Your task to perform on an android device: turn off notifications settings in the gmail app Image 0: 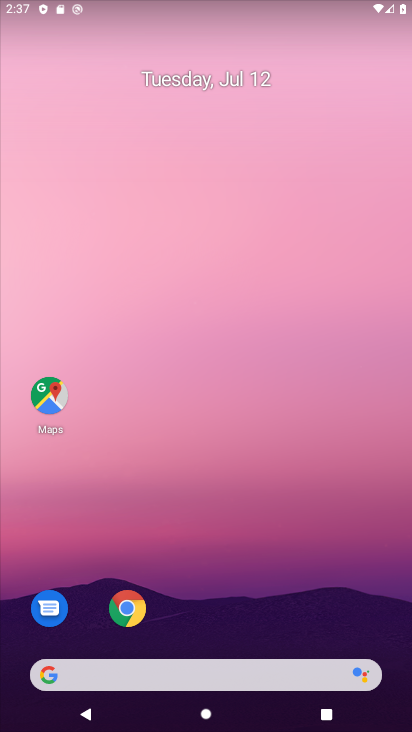
Step 0: drag from (276, 632) to (275, 155)
Your task to perform on an android device: turn off notifications settings in the gmail app Image 1: 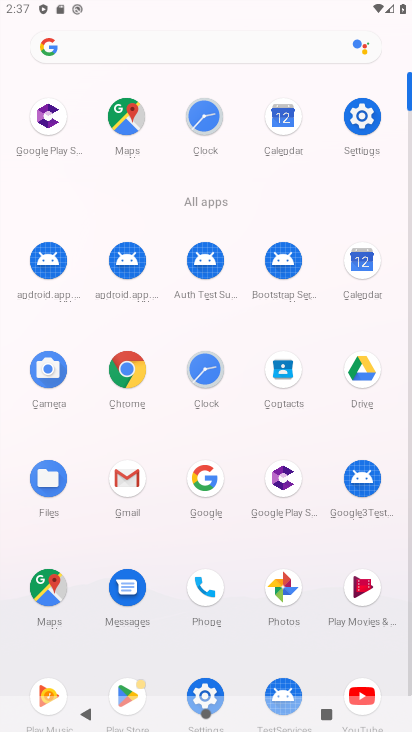
Step 1: click (131, 469)
Your task to perform on an android device: turn off notifications settings in the gmail app Image 2: 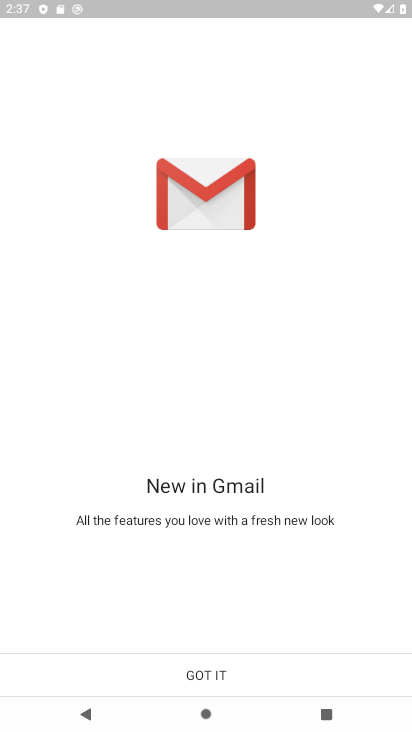
Step 2: click (226, 667)
Your task to perform on an android device: turn off notifications settings in the gmail app Image 3: 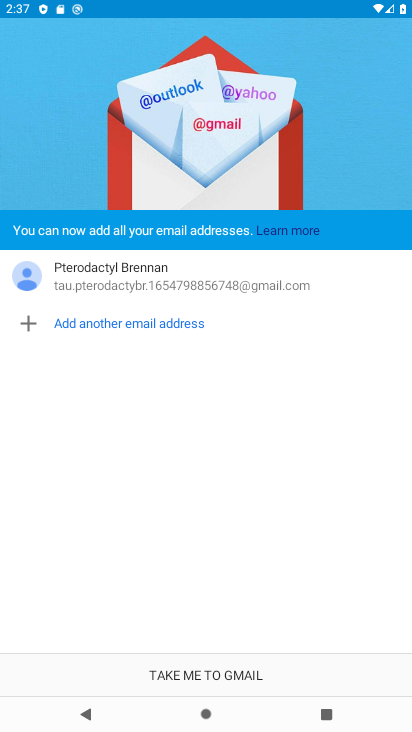
Step 3: click (256, 670)
Your task to perform on an android device: turn off notifications settings in the gmail app Image 4: 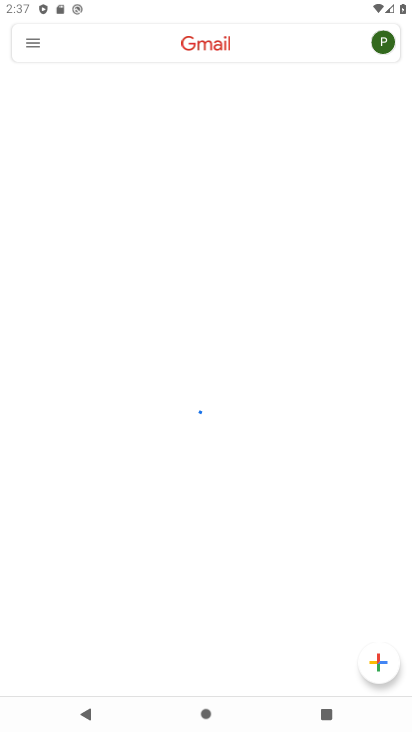
Step 4: click (26, 43)
Your task to perform on an android device: turn off notifications settings in the gmail app Image 5: 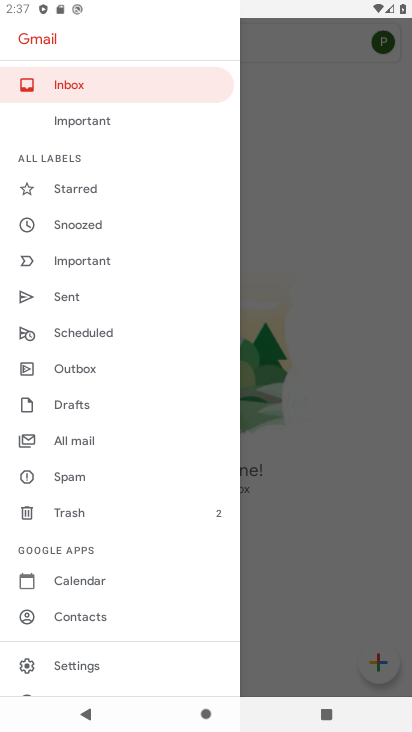
Step 5: click (119, 655)
Your task to perform on an android device: turn off notifications settings in the gmail app Image 6: 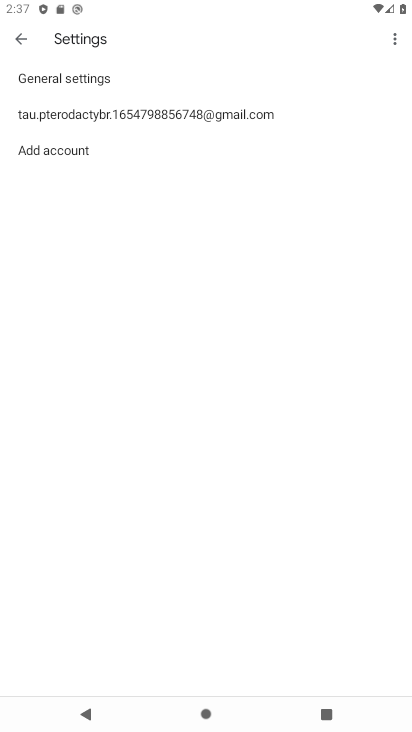
Step 6: click (244, 121)
Your task to perform on an android device: turn off notifications settings in the gmail app Image 7: 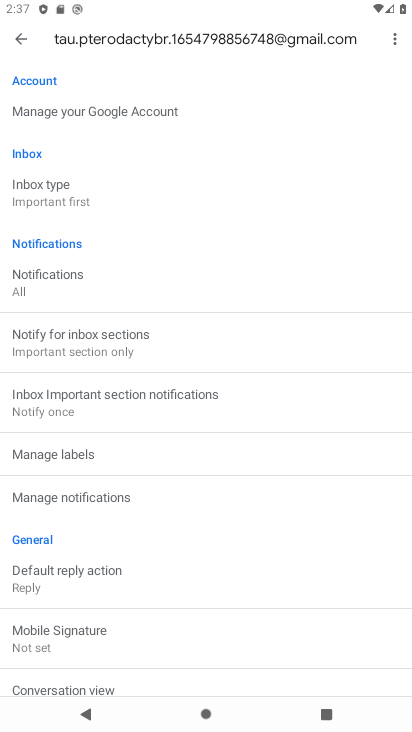
Step 7: click (92, 493)
Your task to perform on an android device: turn off notifications settings in the gmail app Image 8: 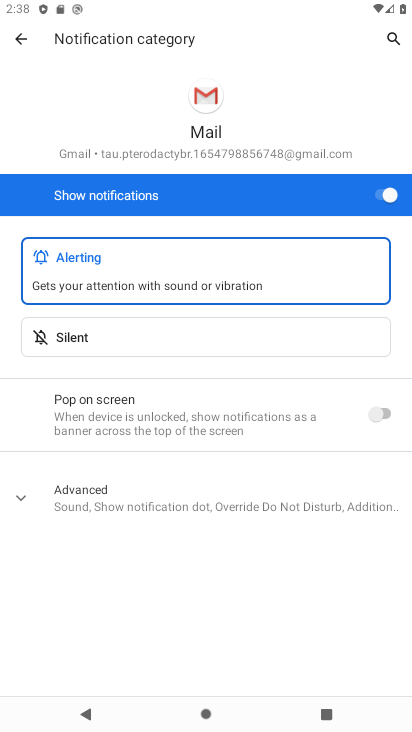
Step 8: click (369, 208)
Your task to perform on an android device: turn off notifications settings in the gmail app Image 9: 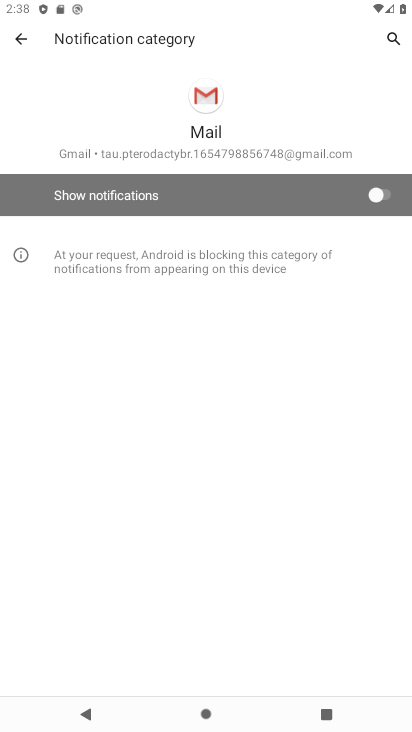
Step 9: task complete